Your task to perform on an android device: Search for seafood restaurants on Google Maps Image 0: 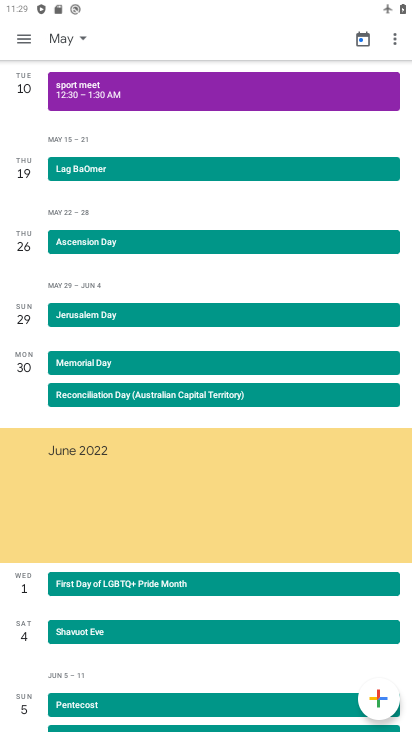
Step 0: press home button
Your task to perform on an android device: Search for seafood restaurants on Google Maps Image 1: 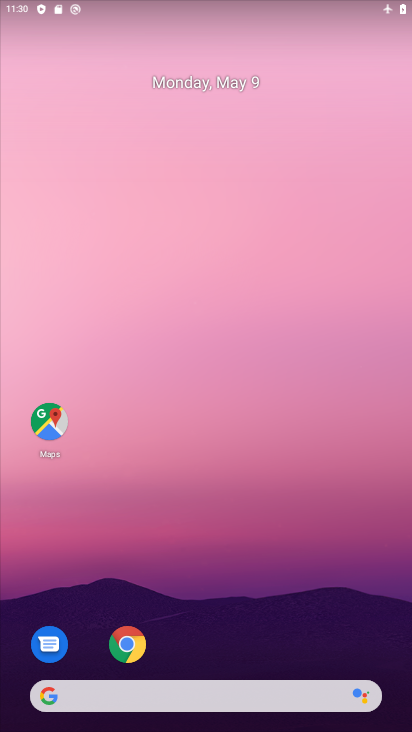
Step 1: click (61, 426)
Your task to perform on an android device: Search for seafood restaurants on Google Maps Image 2: 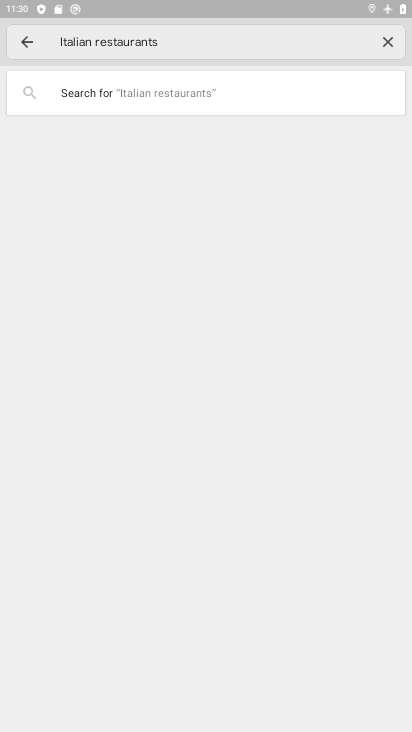
Step 2: click (381, 39)
Your task to perform on an android device: Search for seafood restaurants on Google Maps Image 3: 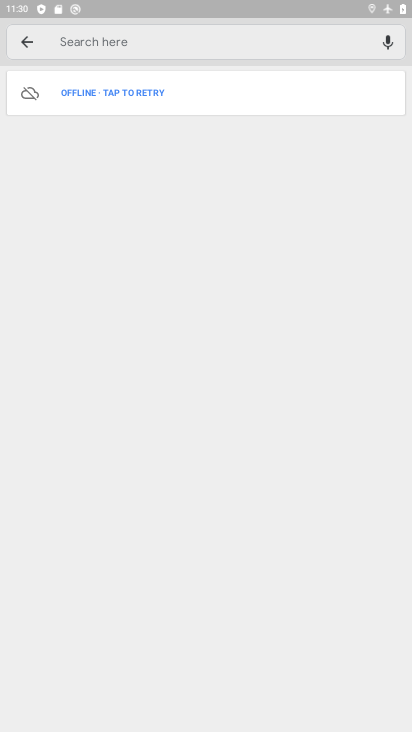
Step 3: click (189, 39)
Your task to perform on an android device: Search for seafood restaurants on Google Maps Image 4: 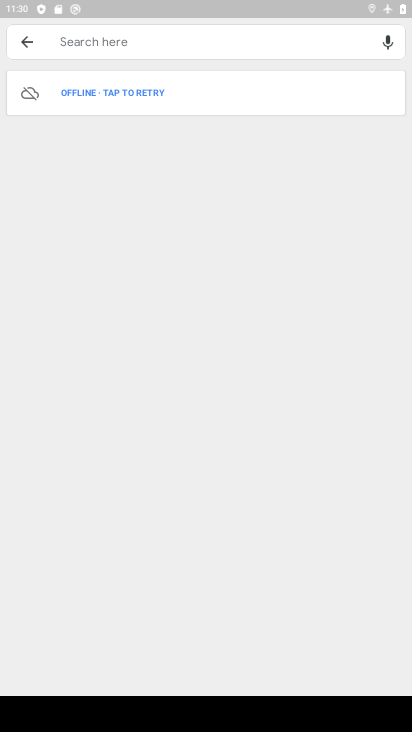
Step 4: type "seafood restaurants"
Your task to perform on an android device: Search for seafood restaurants on Google Maps Image 5: 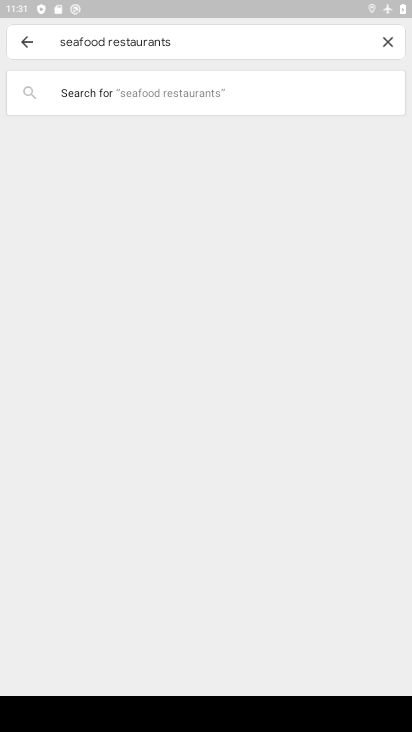
Step 5: task complete